Your task to perform on an android device: turn pop-ups off in chrome Image 0: 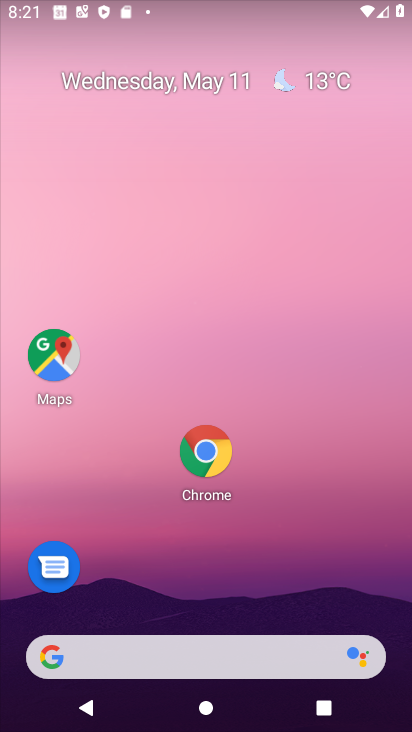
Step 0: click (215, 463)
Your task to perform on an android device: turn pop-ups off in chrome Image 1: 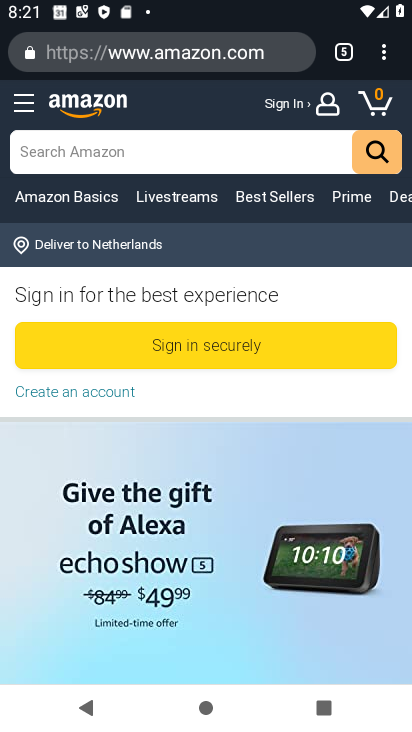
Step 1: drag from (385, 57) to (220, 612)
Your task to perform on an android device: turn pop-ups off in chrome Image 2: 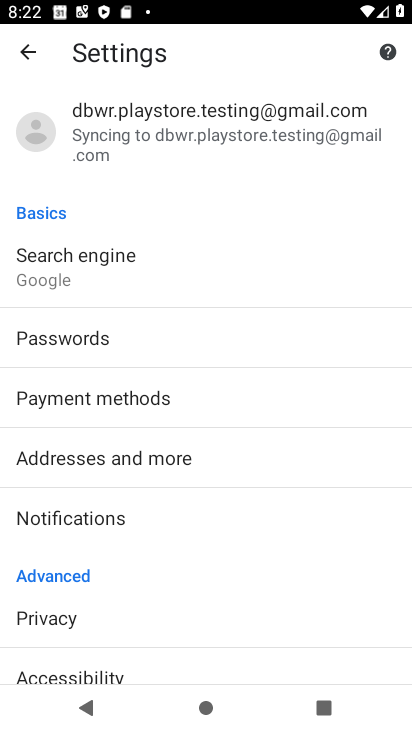
Step 2: drag from (128, 647) to (257, 355)
Your task to perform on an android device: turn pop-ups off in chrome Image 3: 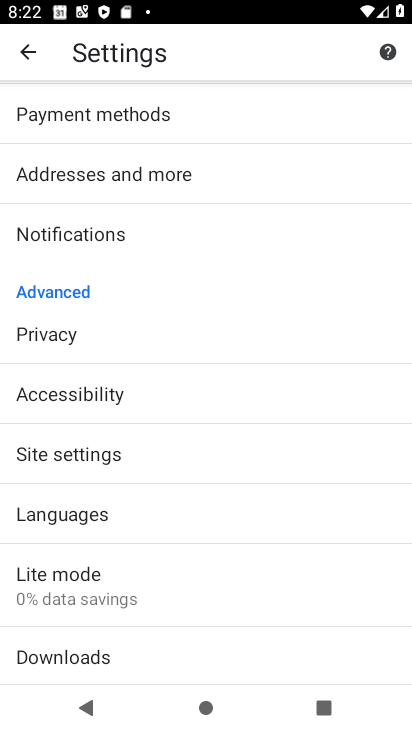
Step 3: click (126, 451)
Your task to perform on an android device: turn pop-ups off in chrome Image 4: 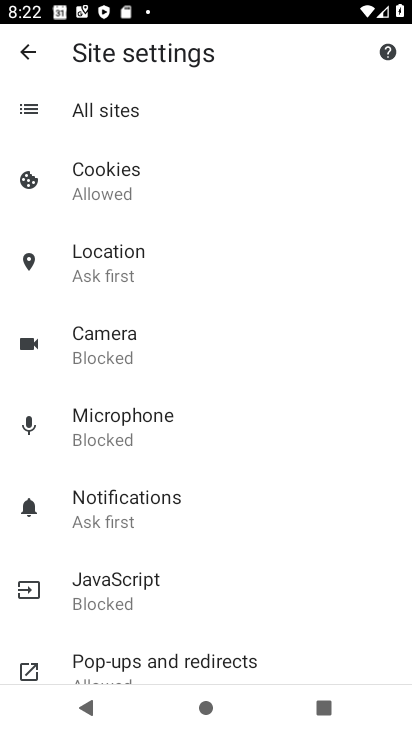
Step 4: drag from (216, 611) to (340, 410)
Your task to perform on an android device: turn pop-ups off in chrome Image 5: 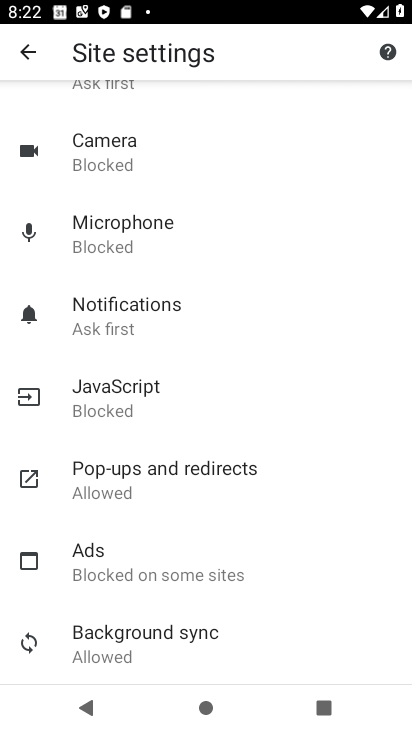
Step 5: click (156, 471)
Your task to perform on an android device: turn pop-ups off in chrome Image 6: 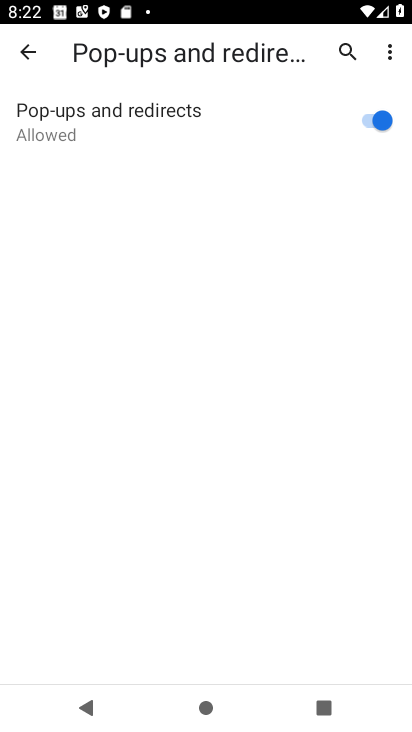
Step 6: click (373, 115)
Your task to perform on an android device: turn pop-ups off in chrome Image 7: 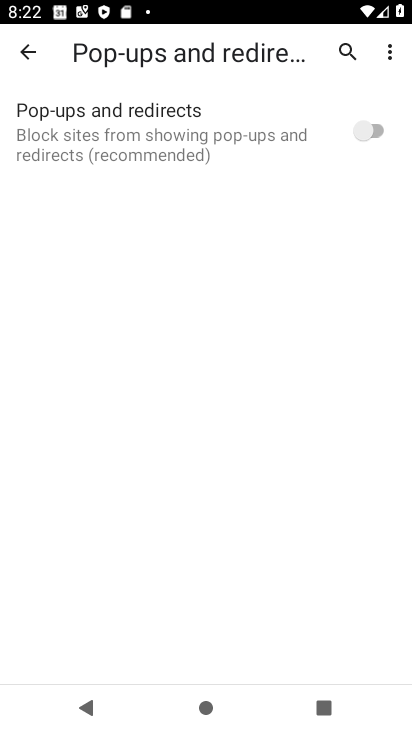
Step 7: task complete